Your task to perform on an android device: move an email to a new category in the gmail app Image 0: 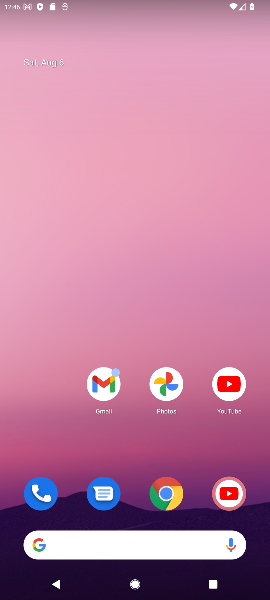
Step 0: click (100, 399)
Your task to perform on an android device: move an email to a new category in the gmail app Image 1: 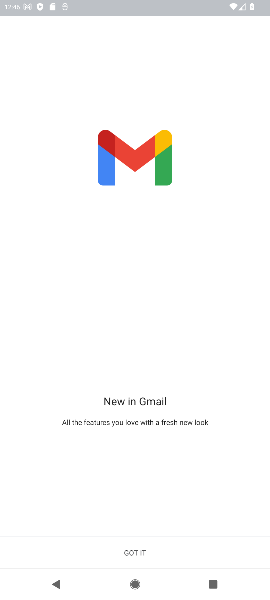
Step 1: click (135, 556)
Your task to perform on an android device: move an email to a new category in the gmail app Image 2: 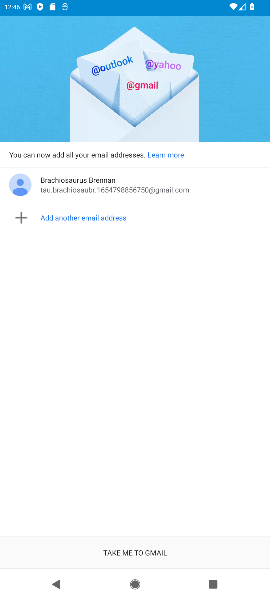
Step 2: click (135, 556)
Your task to perform on an android device: move an email to a new category in the gmail app Image 3: 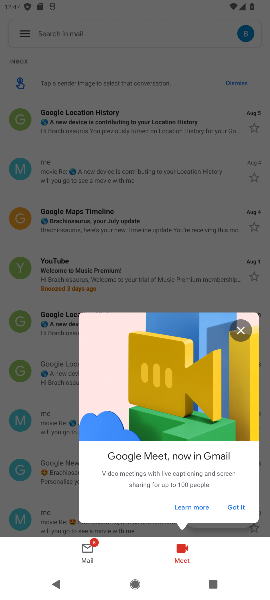
Step 3: click (235, 337)
Your task to perform on an android device: move an email to a new category in the gmail app Image 4: 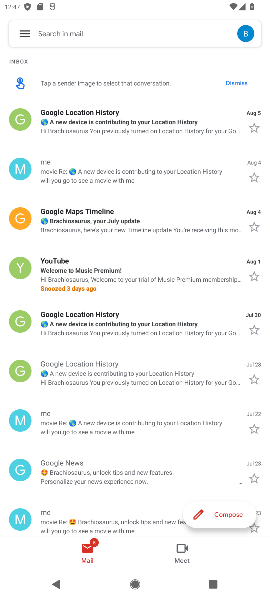
Step 4: click (25, 34)
Your task to perform on an android device: move an email to a new category in the gmail app Image 5: 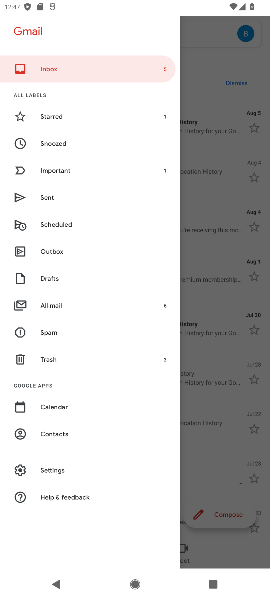
Step 5: click (60, 308)
Your task to perform on an android device: move an email to a new category in the gmail app Image 6: 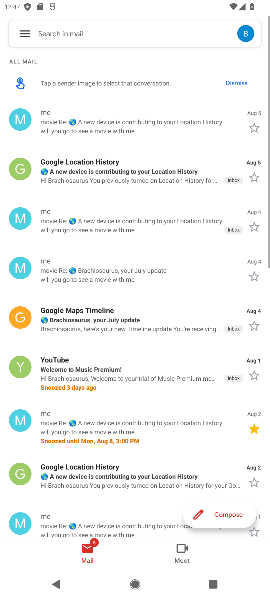
Step 6: click (15, 123)
Your task to perform on an android device: move an email to a new category in the gmail app Image 7: 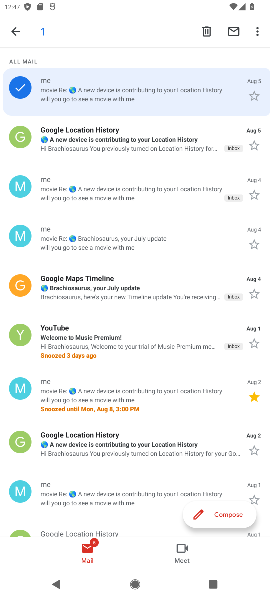
Step 7: click (259, 33)
Your task to perform on an android device: move an email to a new category in the gmail app Image 8: 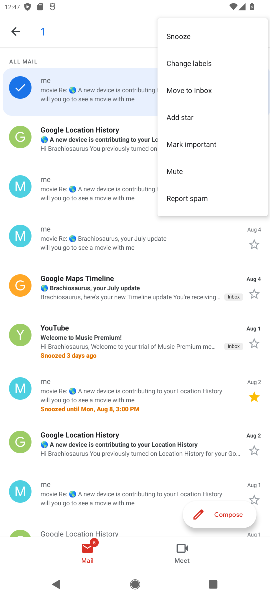
Step 8: click (187, 85)
Your task to perform on an android device: move an email to a new category in the gmail app Image 9: 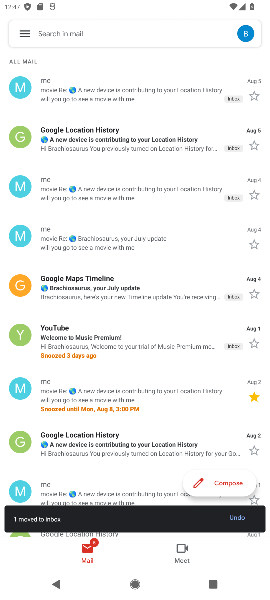
Step 9: task complete